Your task to perform on an android device: turn on translation in the chrome app Image 0: 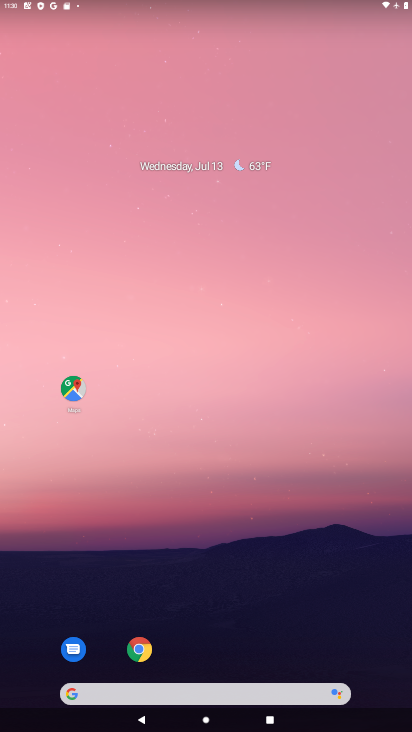
Step 0: drag from (238, 638) to (235, 386)
Your task to perform on an android device: turn on translation in the chrome app Image 1: 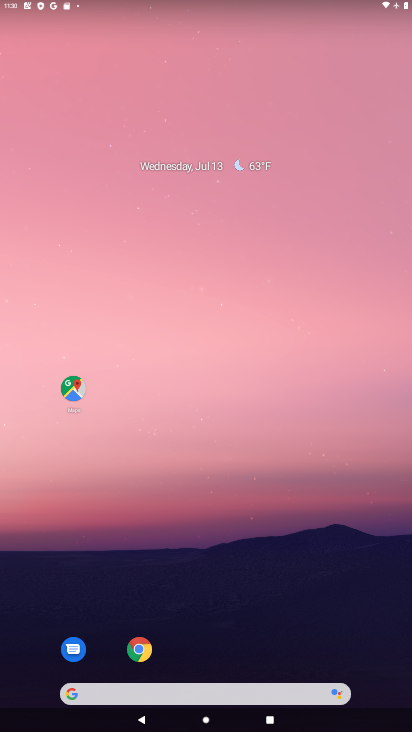
Step 1: drag from (197, 636) to (271, 164)
Your task to perform on an android device: turn on translation in the chrome app Image 2: 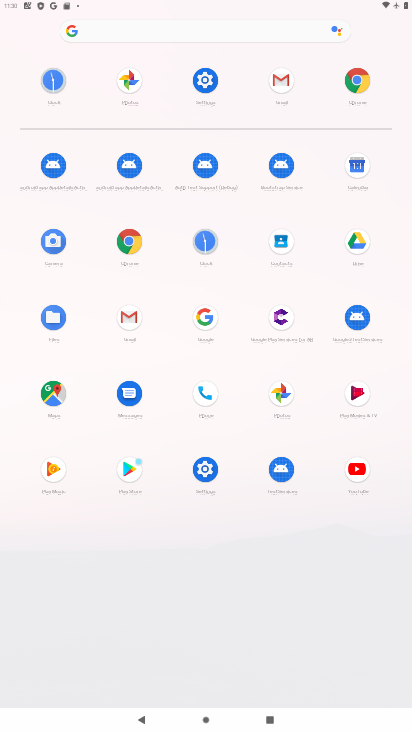
Step 2: click (352, 73)
Your task to perform on an android device: turn on translation in the chrome app Image 3: 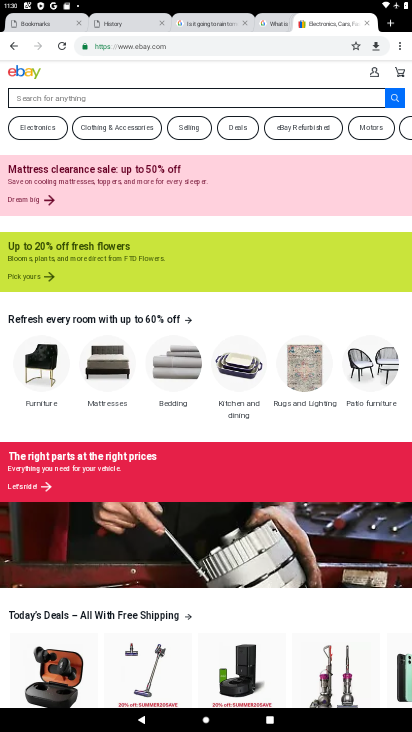
Step 3: click (393, 46)
Your task to perform on an android device: turn on translation in the chrome app Image 4: 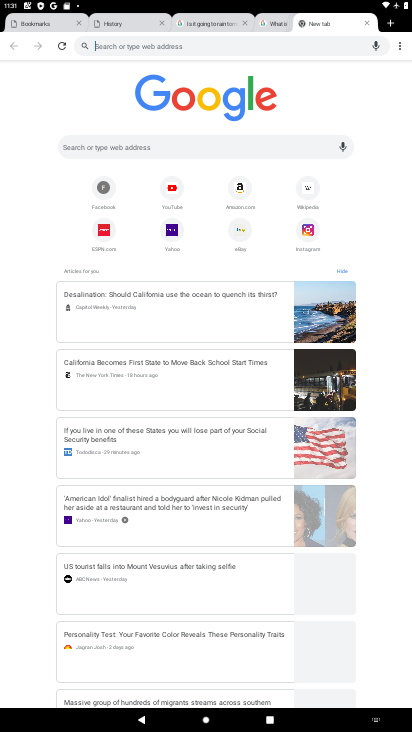
Step 4: click (398, 37)
Your task to perform on an android device: turn on translation in the chrome app Image 5: 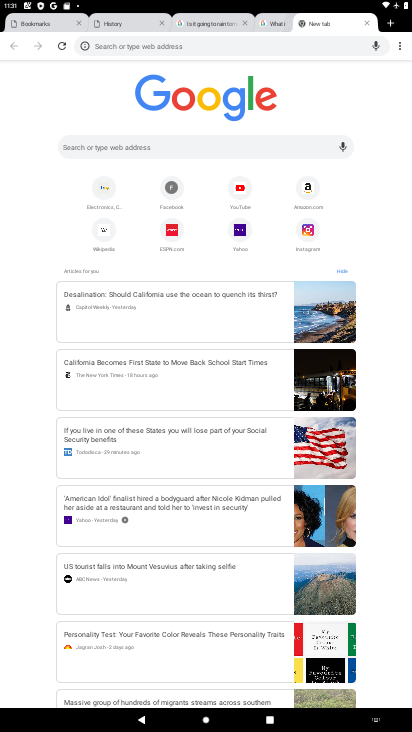
Step 5: click (398, 39)
Your task to perform on an android device: turn on translation in the chrome app Image 6: 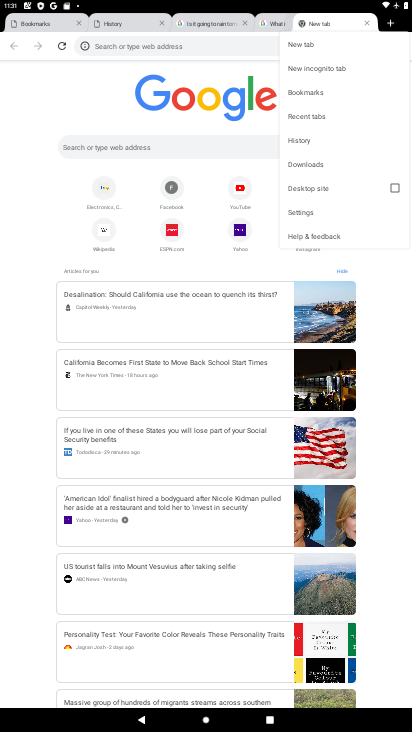
Step 6: click (314, 204)
Your task to perform on an android device: turn on translation in the chrome app Image 7: 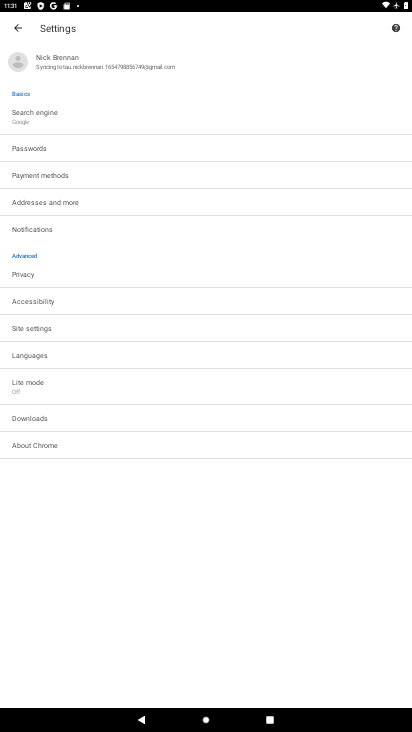
Step 7: click (64, 344)
Your task to perform on an android device: turn on translation in the chrome app Image 8: 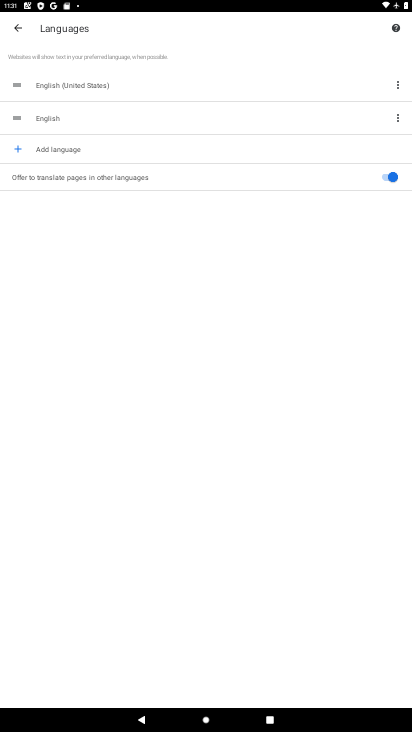
Step 8: task complete